Your task to perform on an android device: star an email in the gmail app Image 0: 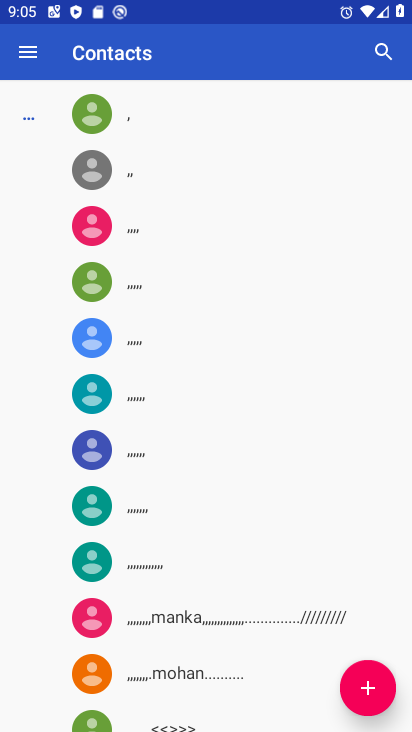
Step 0: press home button
Your task to perform on an android device: star an email in the gmail app Image 1: 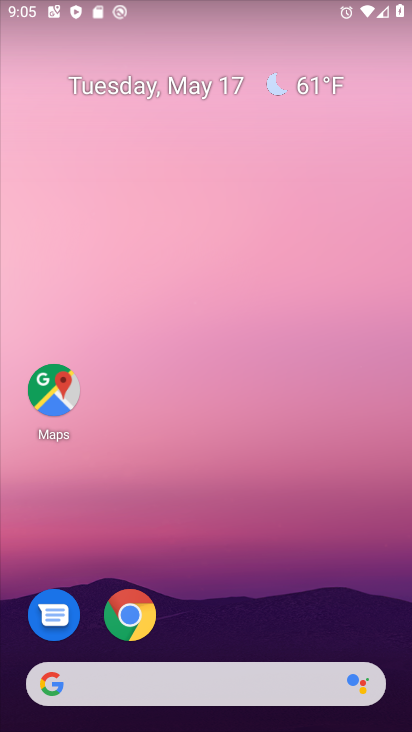
Step 1: drag from (279, 607) to (277, 78)
Your task to perform on an android device: star an email in the gmail app Image 2: 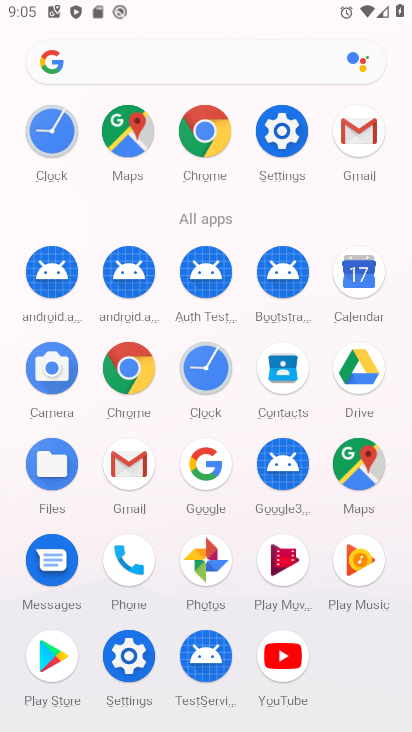
Step 2: click (138, 468)
Your task to perform on an android device: star an email in the gmail app Image 3: 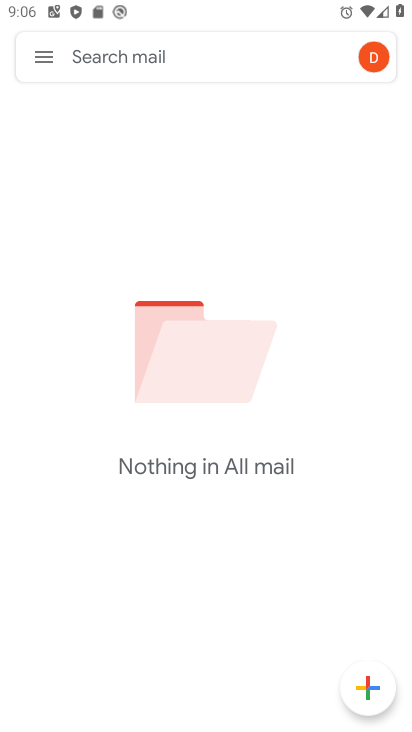
Step 3: task complete